Your task to perform on an android device: Go to Maps Image 0: 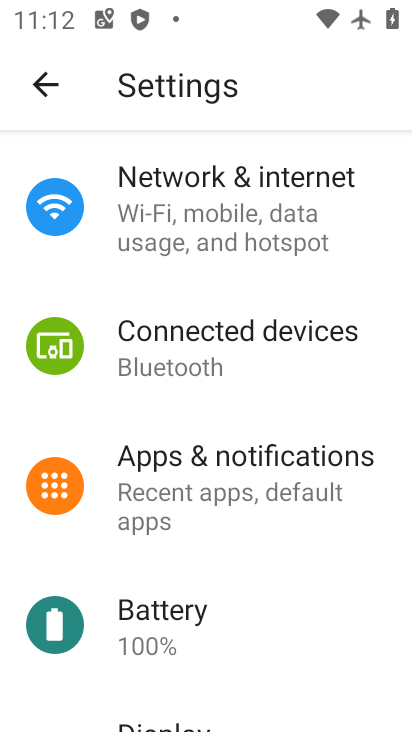
Step 0: press home button
Your task to perform on an android device: Go to Maps Image 1: 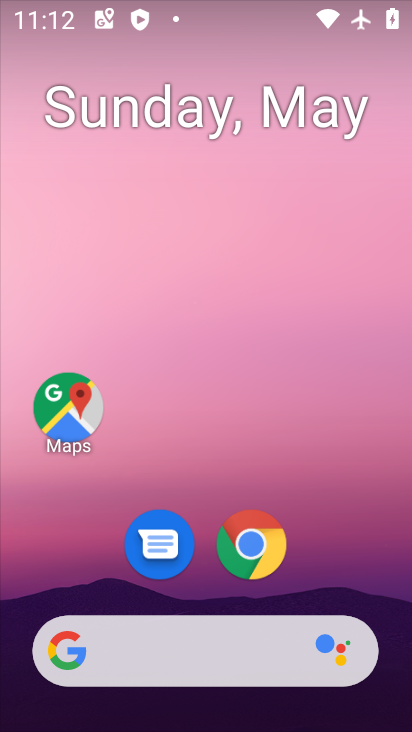
Step 1: click (57, 391)
Your task to perform on an android device: Go to Maps Image 2: 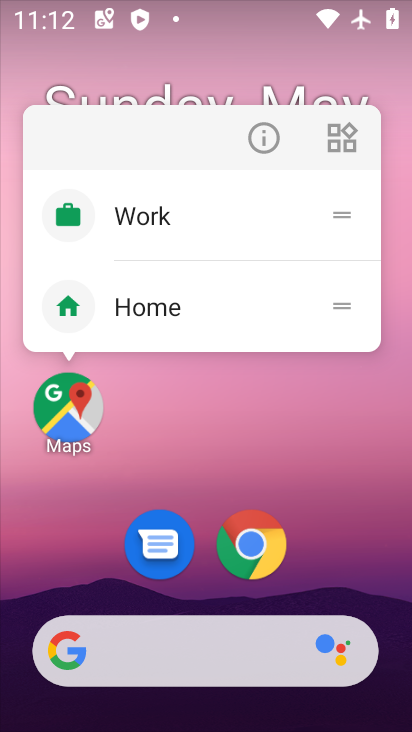
Step 2: click (36, 367)
Your task to perform on an android device: Go to Maps Image 3: 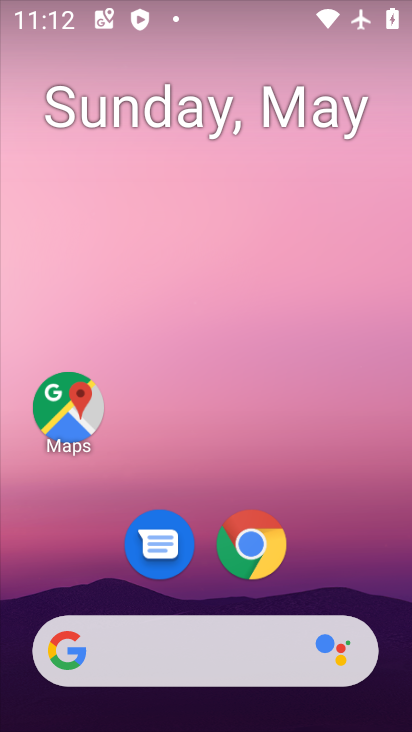
Step 3: click (68, 407)
Your task to perform on an android device: Go to Maps Image 4: 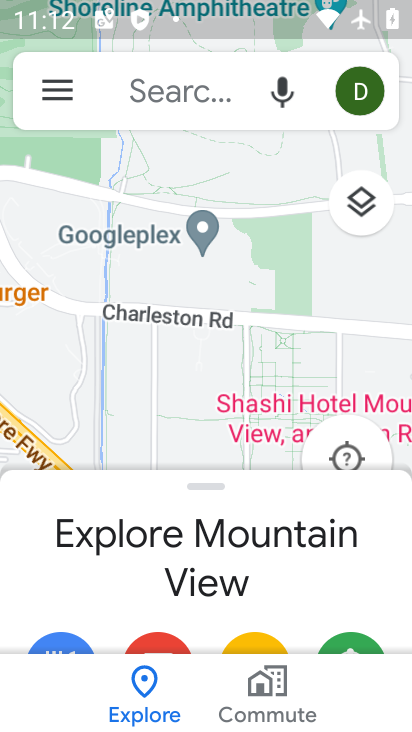
Step 4: task complete